Your task to perform on an android device: toggle notification dots Image 0: 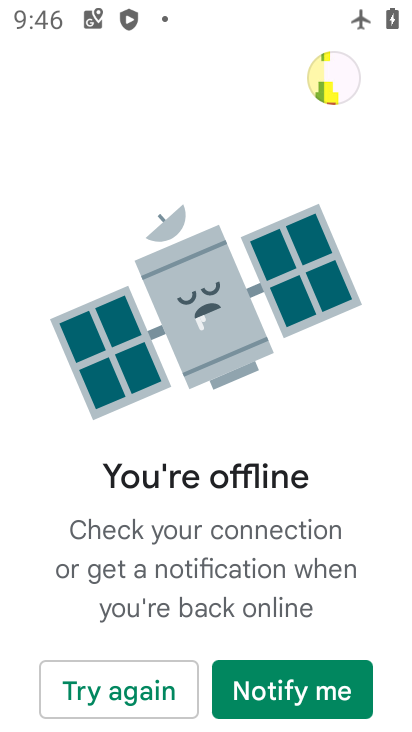
Step 0: press home button
Your task to perform on an android device: toggle notification dots Image 1: 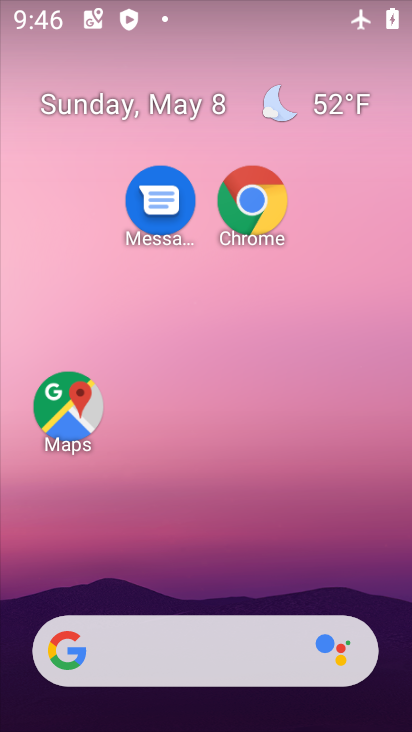
Step 1: drag from (248, 602) to (254, 23)
Your task to perform on an android device: toggle notification dots Image 2: 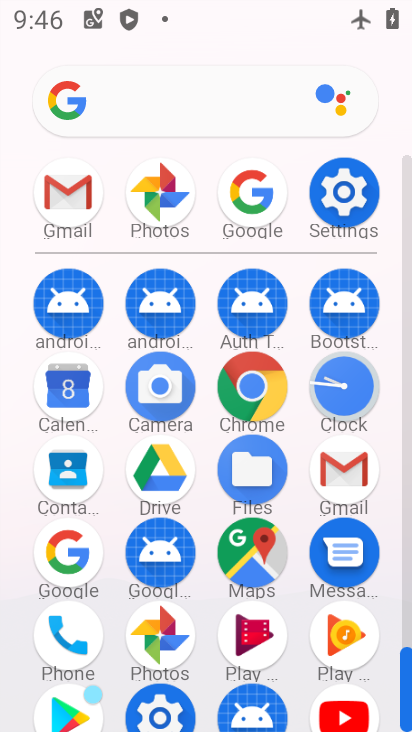
Step 2: click (330, 192)
Your task to perform on an android device: toggle notification dots Image 3: 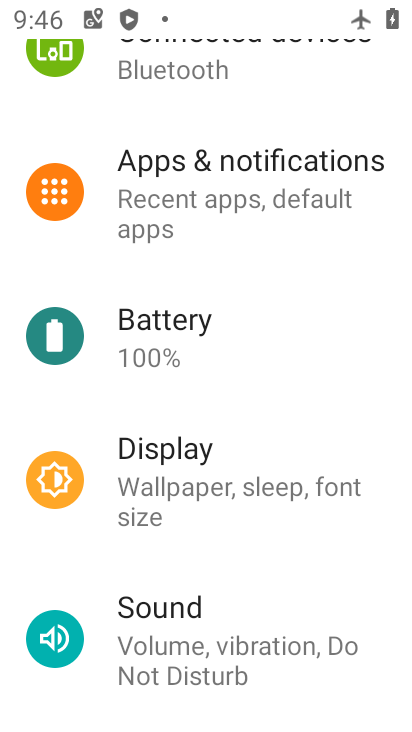
Step 3: click (221, 215)
Your task to perform on an android device: toggle notification dots Image 4: 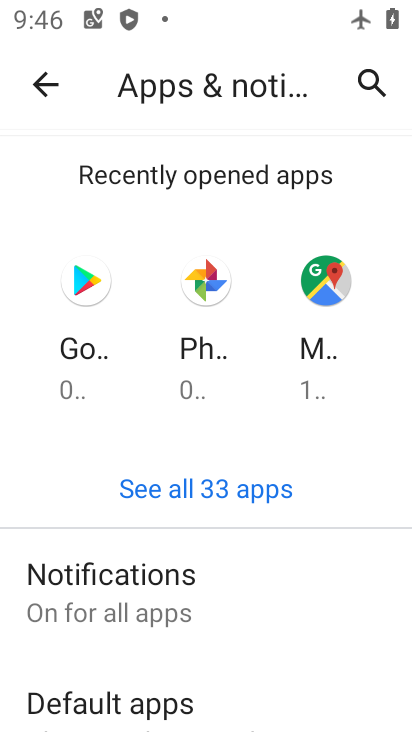
Step 4: drag from (108, 680) to (116, 349)
Your task to perform on an android device: toggle notification dots Image 5: 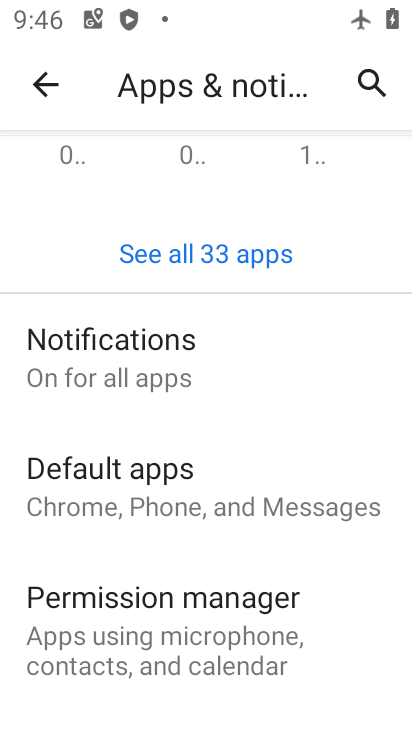
Step 5: click (103, 364)
Your task to perform on an android device: toggle notification dots Image 6: 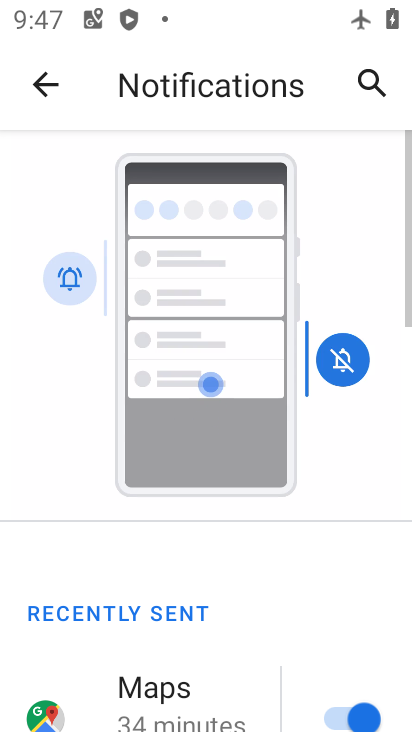
Step 6: drag from (185, 653) to (197, 158)
Your task to perform on an android device: toggle notification dots Image 7: 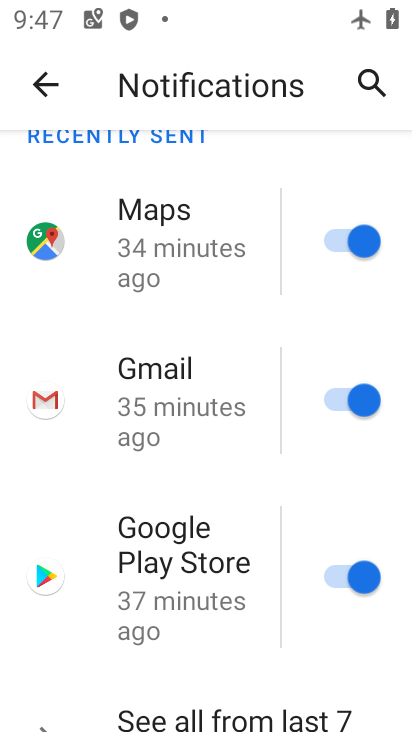
Step 7: drag from (233, 637) to (233, 51)
Your task to perform on an android device: toggle notification dots Image 8: 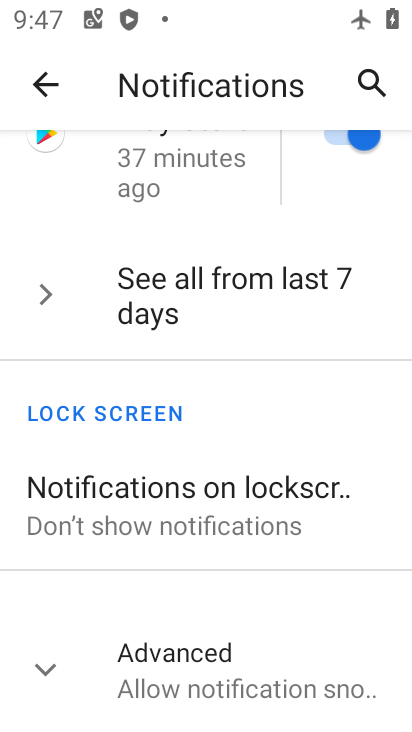
Step 8: click (183, 671)
Your task to perform on an android device: toggle notification dots Image 9: 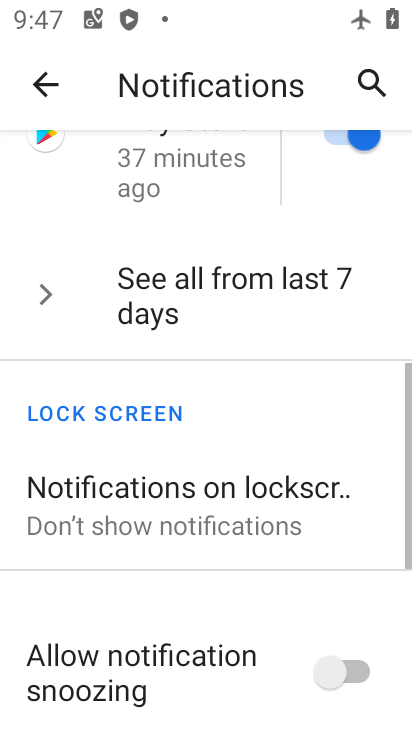
Step 9: drag from (184, 671) to (186, 56)
Your task to perform on an android device: toggle notification dots Image 10: 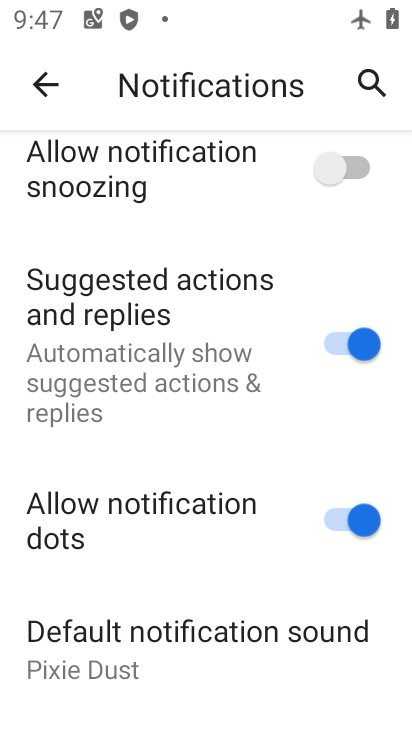
Step 10: click (316, 528)
Your task to perform on an android device: toggle notification dots Image 11: 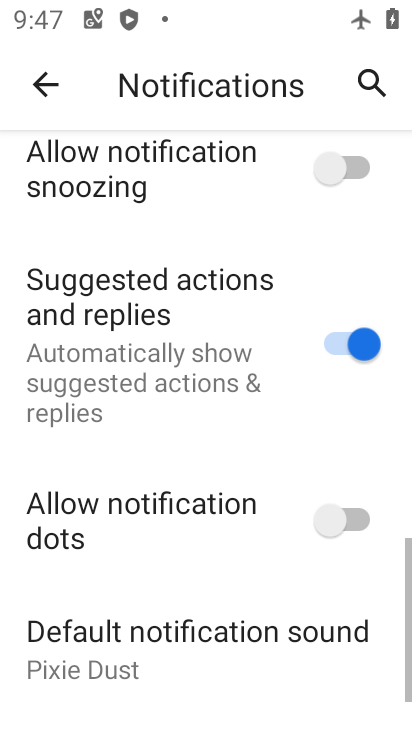
Step 11: task complete